Your task to perform on an android device: turn notification dots on Image 0: 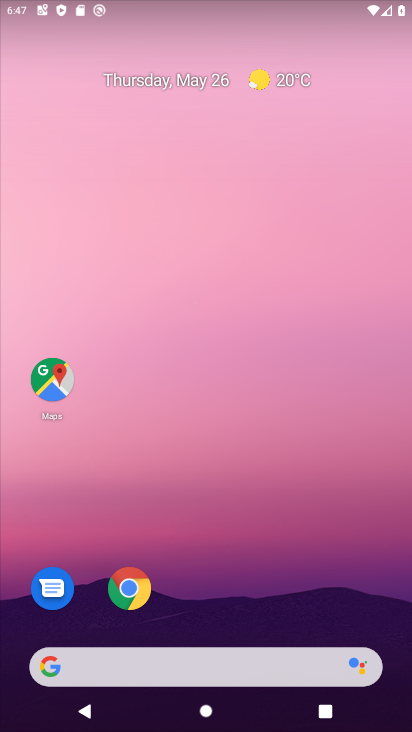
Step 0: drag from (398, 621) to (241, 41)
Your task to perform on an android device: turn notification dots on Image 1: 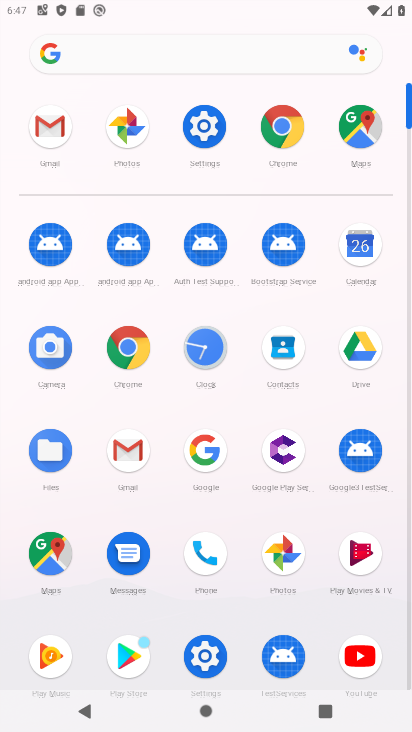
Step 1: click (210, 101)
Your task to perform on an android device: turn notification dots on Image 2: 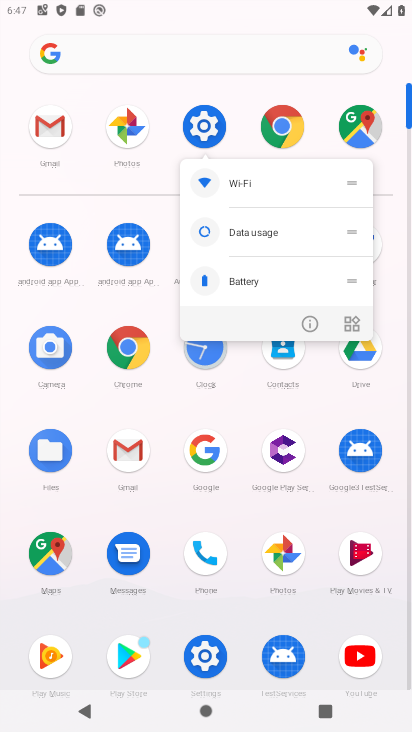
Step 2: click (210, 101)
Your task to perform on an android device: turn notification dots on Image 3: 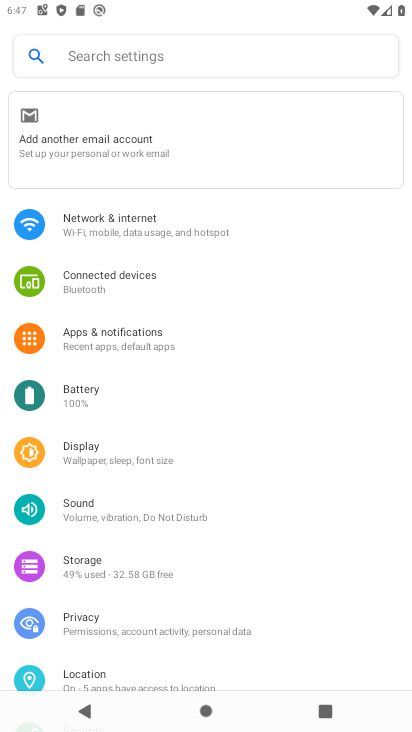
Step 3: click (125, 322)
Your task to perform on an android device: turn notification dots on Image 4: 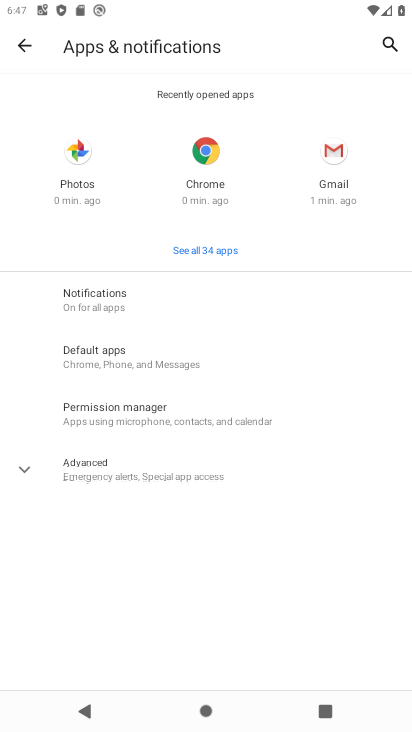
Step 4: click (100, 317)
Your task to perform on an android device: turn notification dots on Image 5: 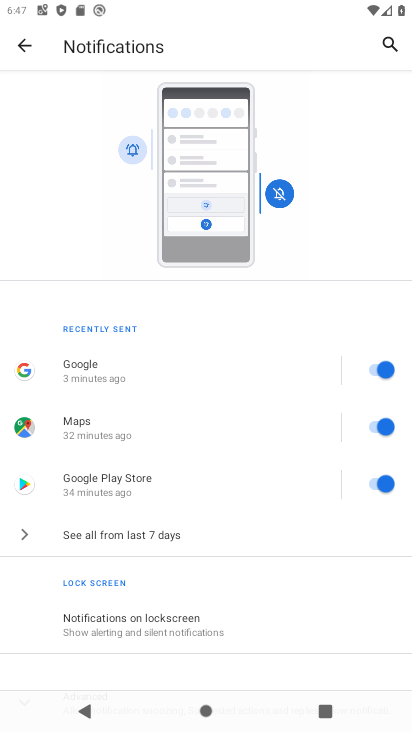
Step 5: drag from (140, 632) to (152, 132)
Your task to perform on an android device: turn notification dots on Image 6: 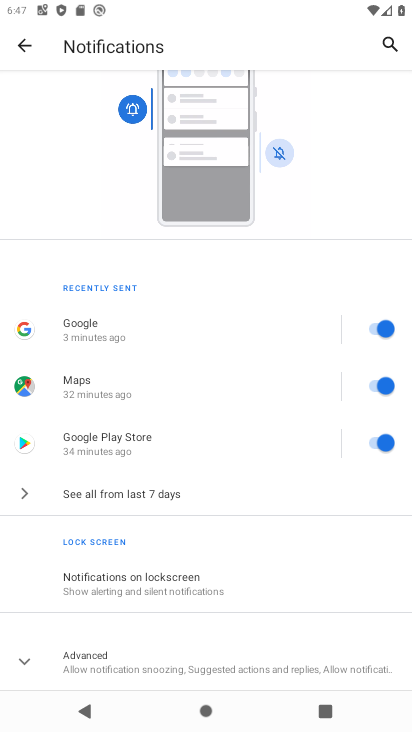
Step 6: click (89, 652)
Your task to perform on an android device: turn notification dots on Image 7: 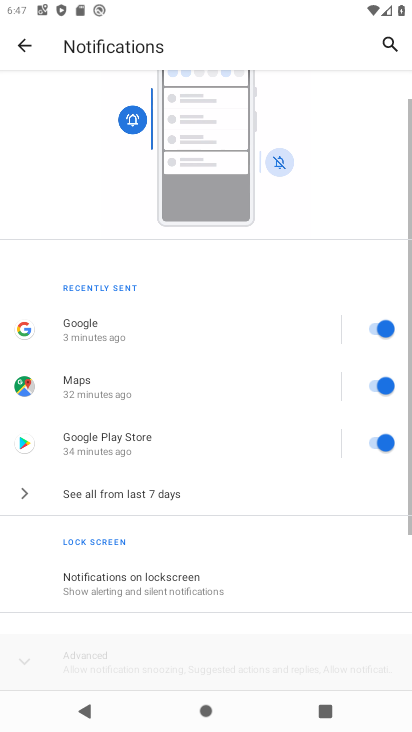
Step 7: task complete